Your task to perform on an android device: toggle translation in the chrome app Image 0: 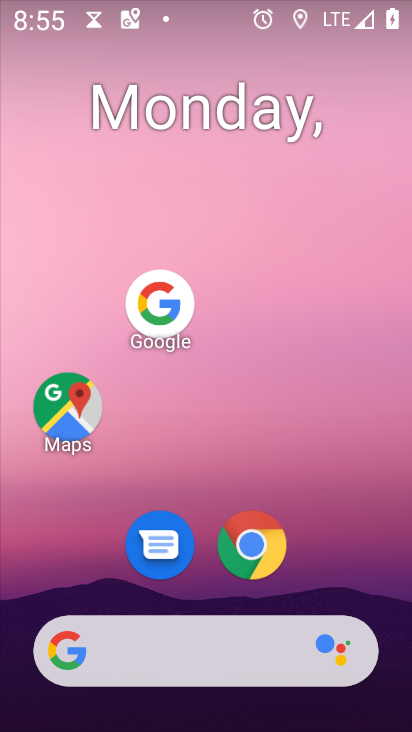
Step 0: press home button
Your task to perform on an android device: toggle translation in the chrome app Image 1: 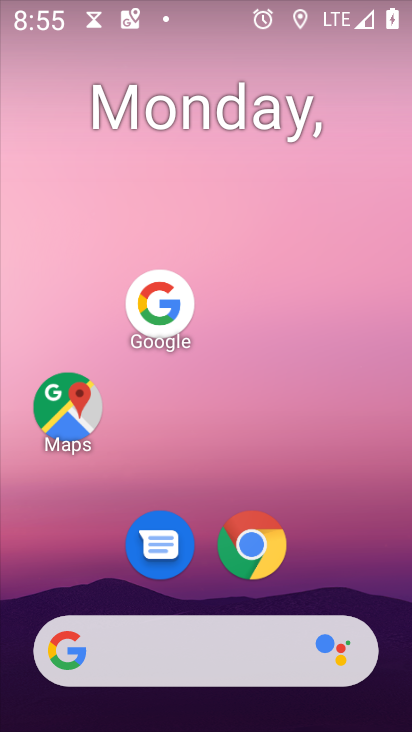
Step 1: click (252, 540)
Your task to perform on an android device: toggle translation in the chrome app Image 2: 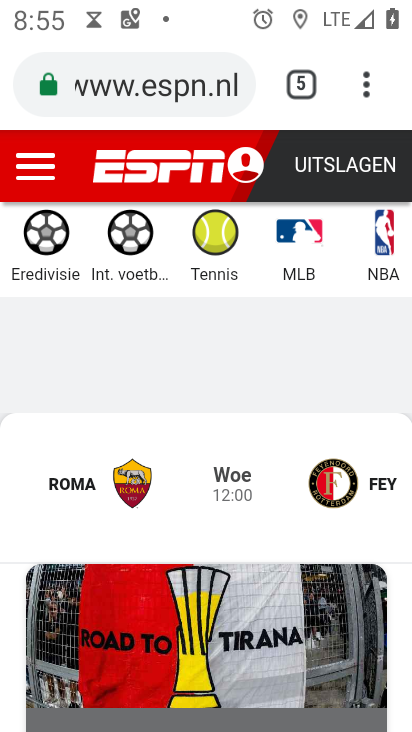
Step 2: drag from (361, 87) to (174, 608)
Your task to perform on an android device: toggle translation in the chrome app Image 3: 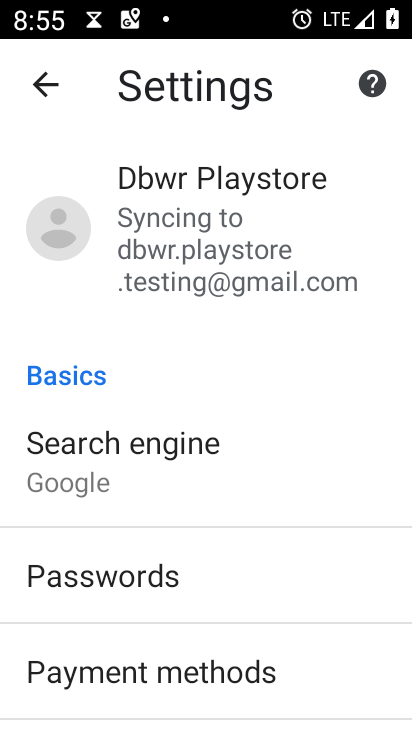
Step 3: drag from (228, 662) to (286, 102)
Your task to perform on an android device: toggle translation in the chrome app Image 4: 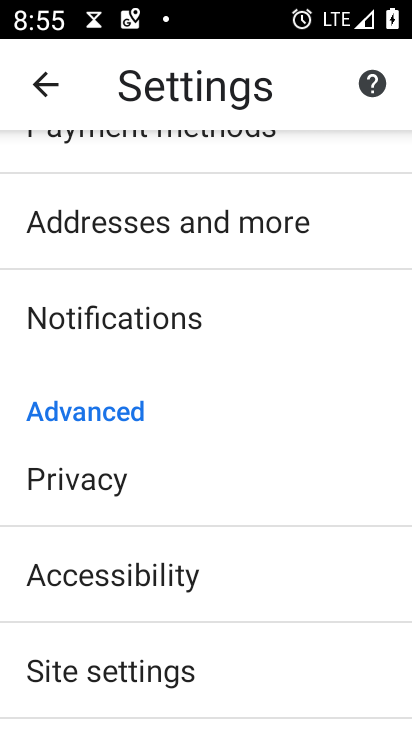
Step 4: drag from (231, 648) to (292, 228)
Your task to perform on an android device: toggle translation in the chrome app Image 5: 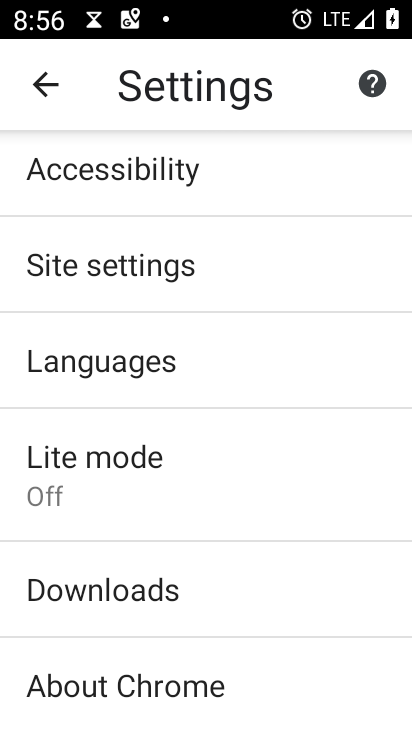
Step 5: click (170, 367)
Your task to perform on an android device: toggle translation in the chrome app Image 6: 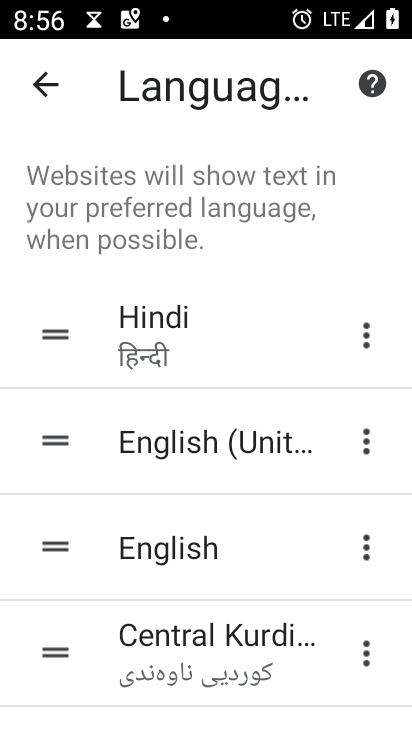
Step 6: drag from (226, 650) to (315, 279)
Your task to perform on an android device: toggle translation in the chrome app Image 7: 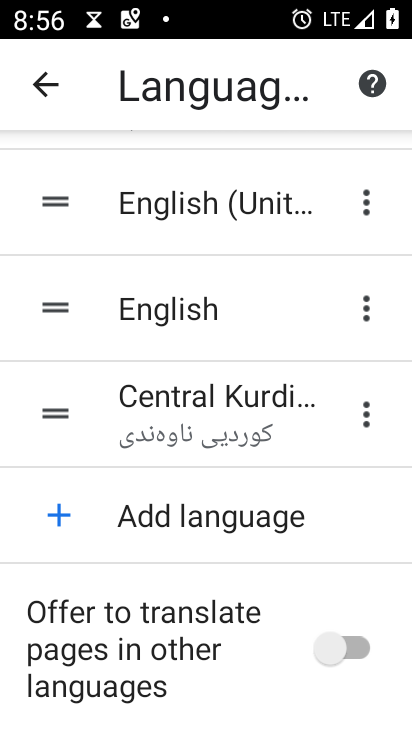
Step 7: click (349, 656)
Your task to perform on an android device: toggle translation in the chrome app Image 8: 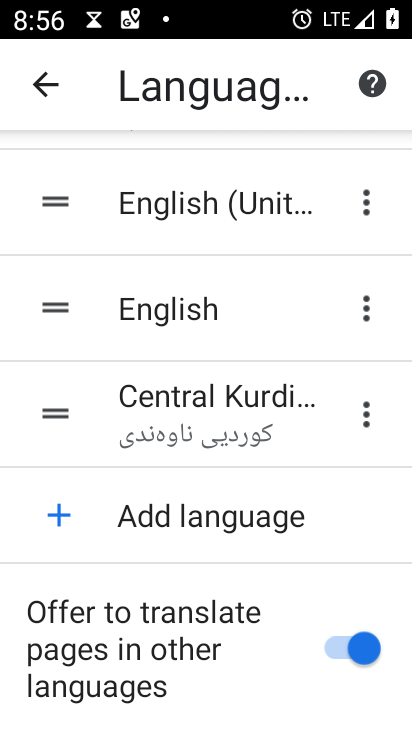
Step 8: task complete